Your task to perform on an android device: manage bookmarks in the chrome app Image 0: 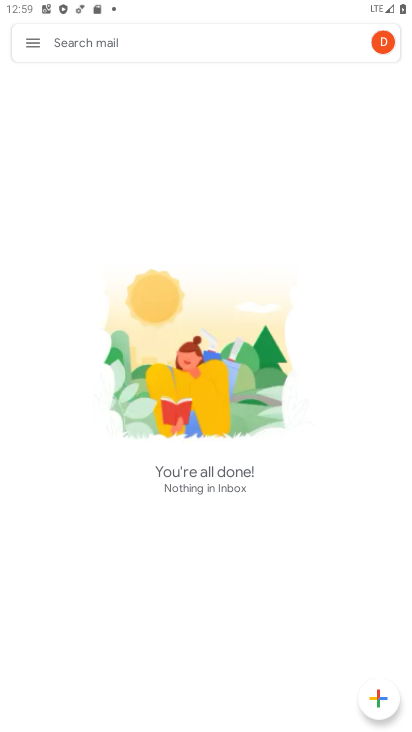
Step 0: press home button
Your task to perform on an android device: manage bookmarks in the chrome app Image 1: 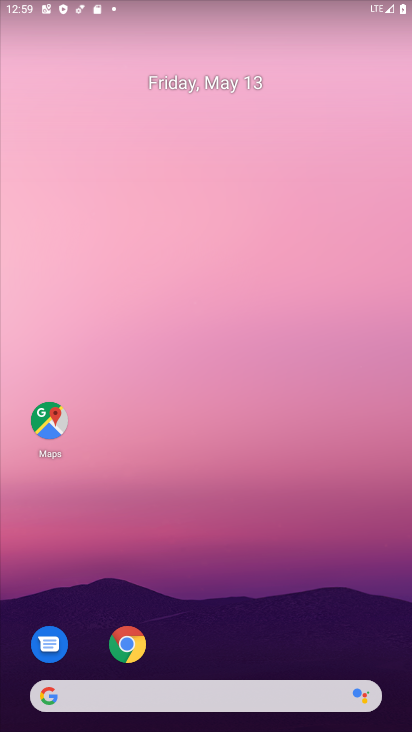
Step 1: drag from (350, 616) to (329, 89)
Your task to perform on an android device: manage bookmarks in the chrome app Image 2: 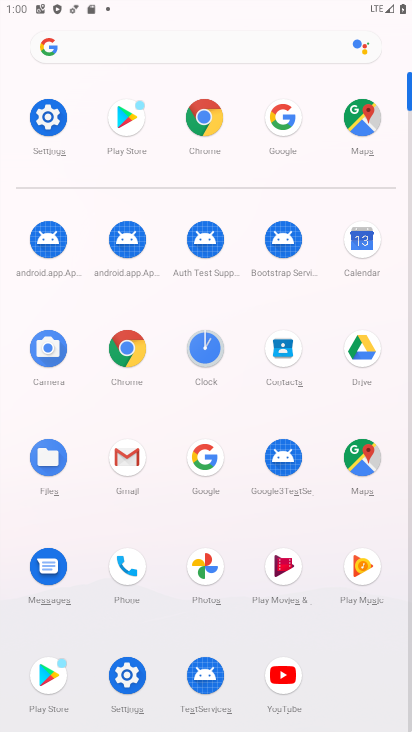
Step 2: click (114, 342)
Your task to perform on an android device: manage bookmarks in the chrome app Image 3: 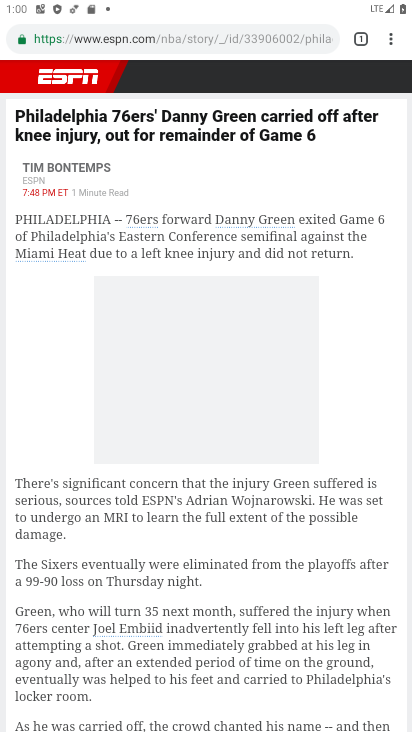
Step 3: press back button
Your task to perform on an android device: manage bookmarks in the chrome app Image 4: 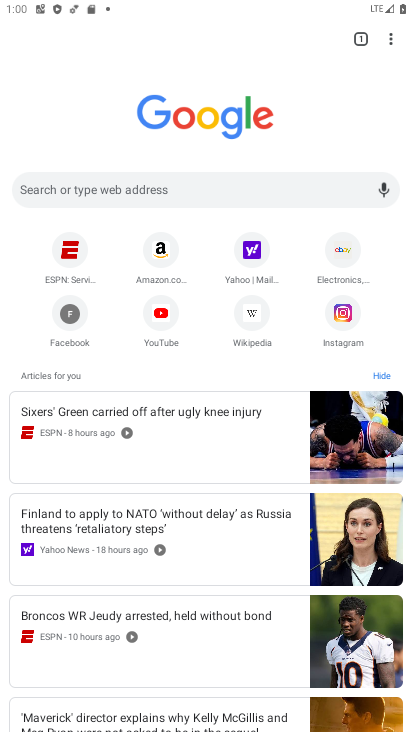
Step 4: click (396, 32)
Your task to perform on an android device: manage bookmarks in the chrome app Image 5: 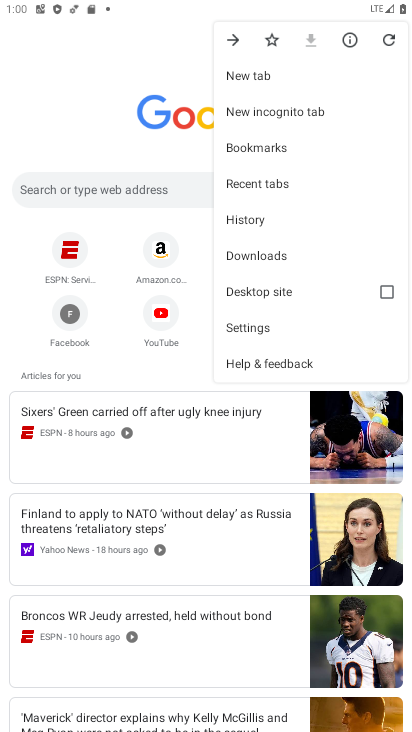
Step 5: click (308, 165)
Your task to perform on an android device: manage bookmarks in the chrome app Image 6: 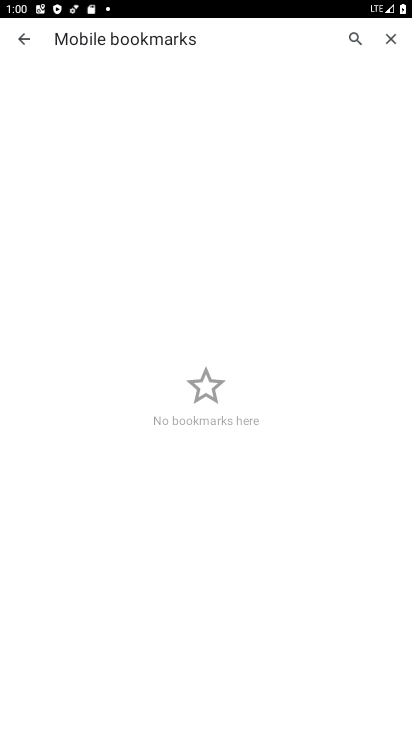
Step 6: task complete